Your task to perform on an android device: open app "Clock" Image 0: 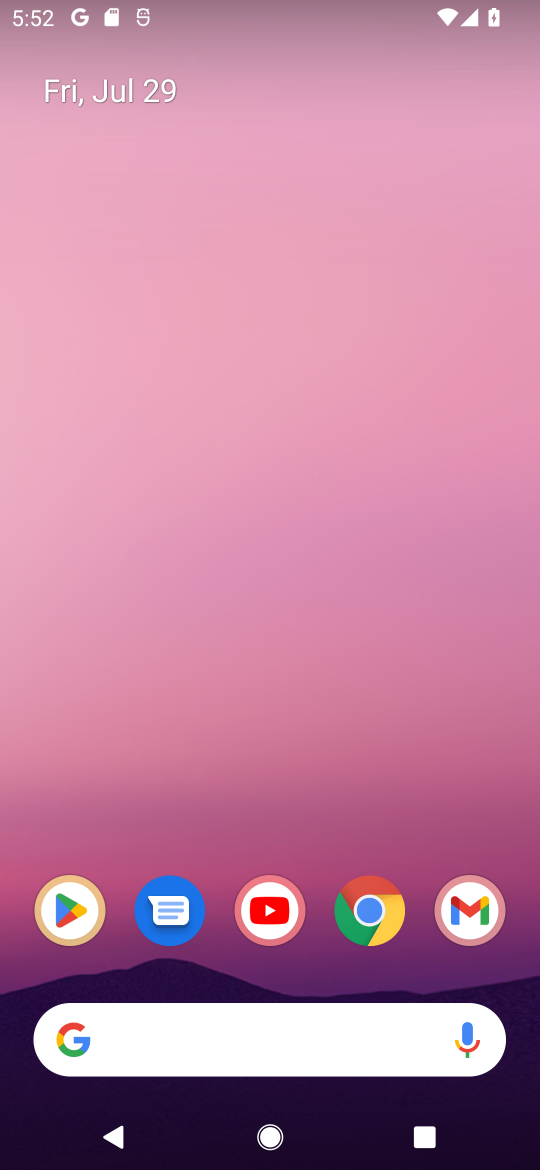
Step 0: click (78, 930)
Your task to perform on an android device: open app "Clock" Image 1: 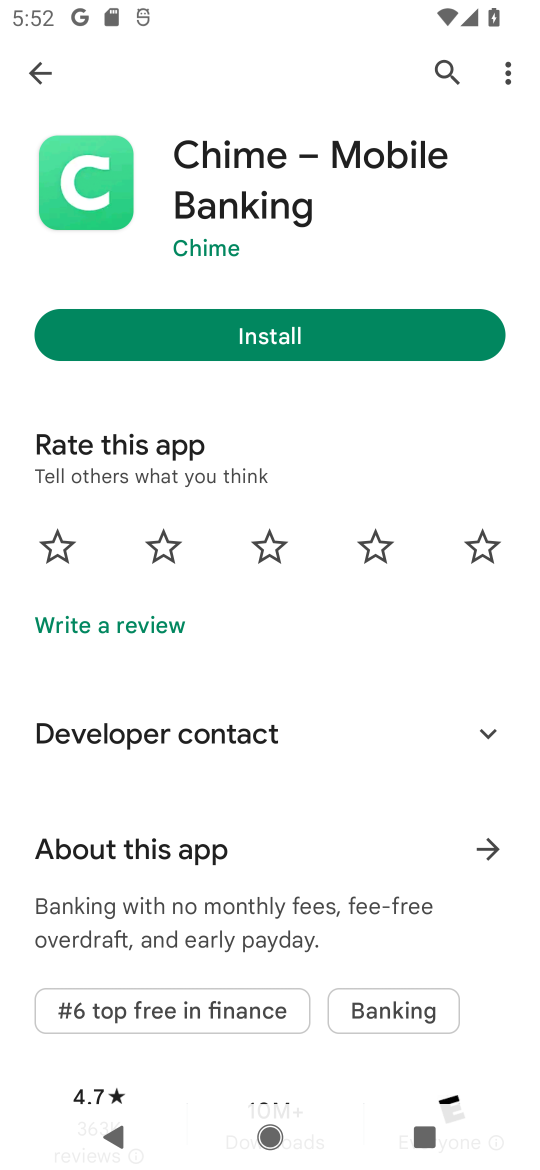
Step 1: click (442, 55)
Your task to perform on an android device: open app "Clock" Image 2: 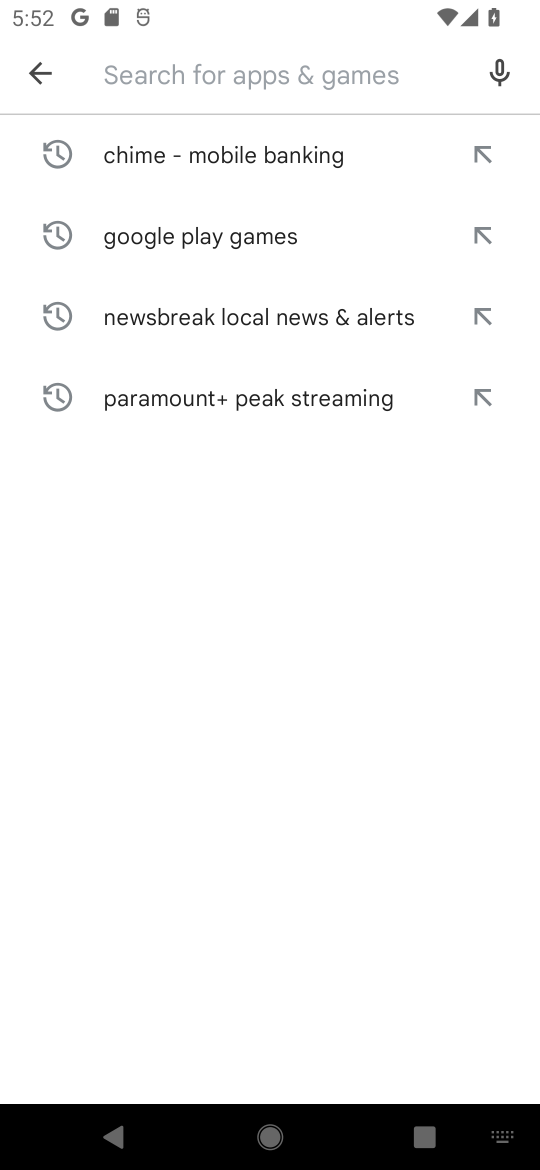
Step 2: type "clock"
Your task to perform on an android device: open app "Clock" Image 3: 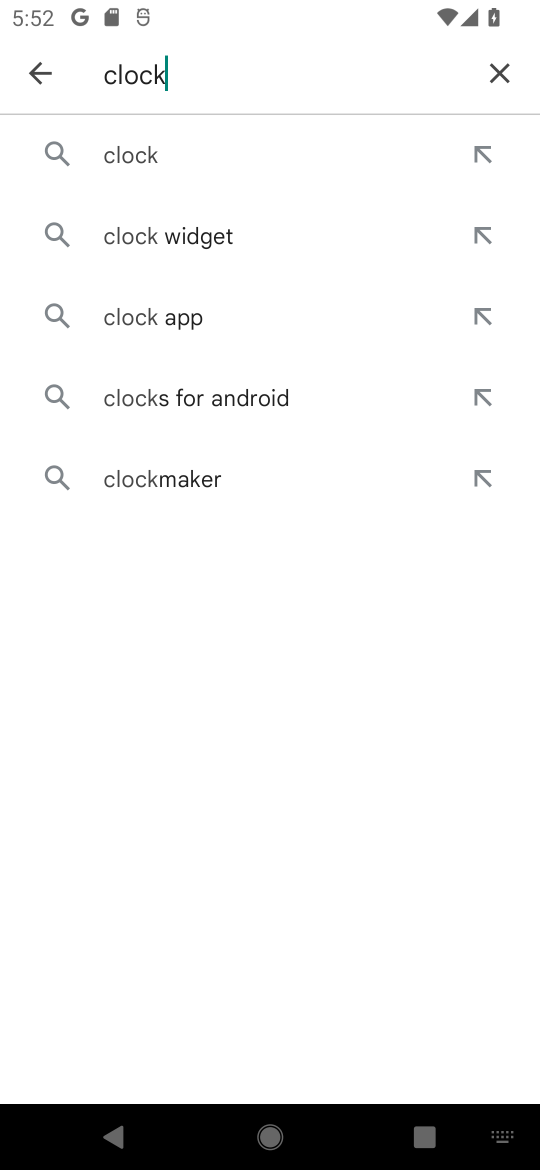
Step 3: click (199, 148)
Your task to perform on an android device: open app "Clock" Image 4: 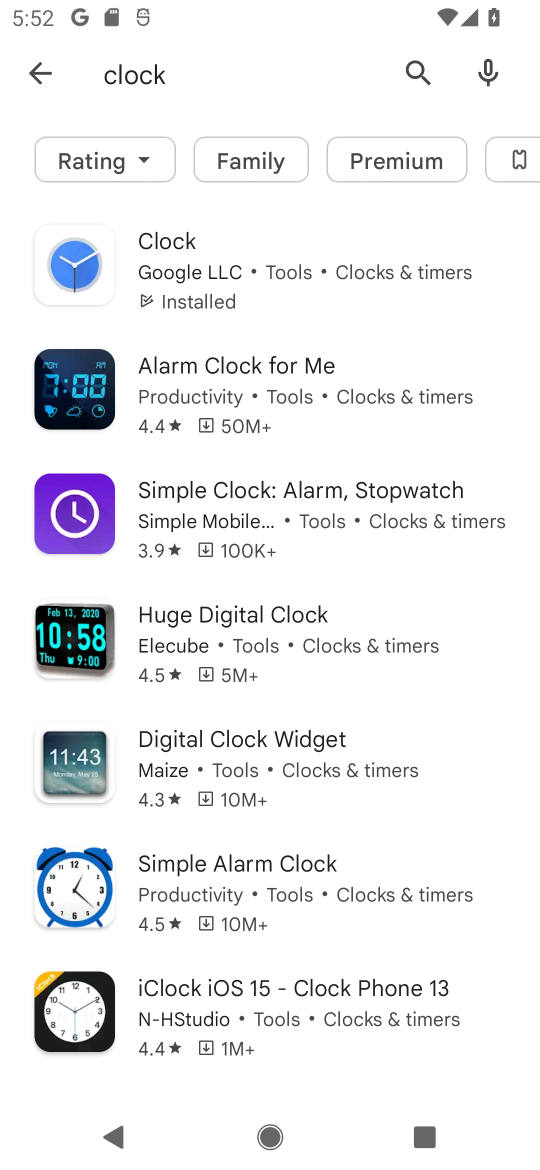
Step 4: click (181, 258)
Your task to perform on an android device: open app "Clock" Image 5: 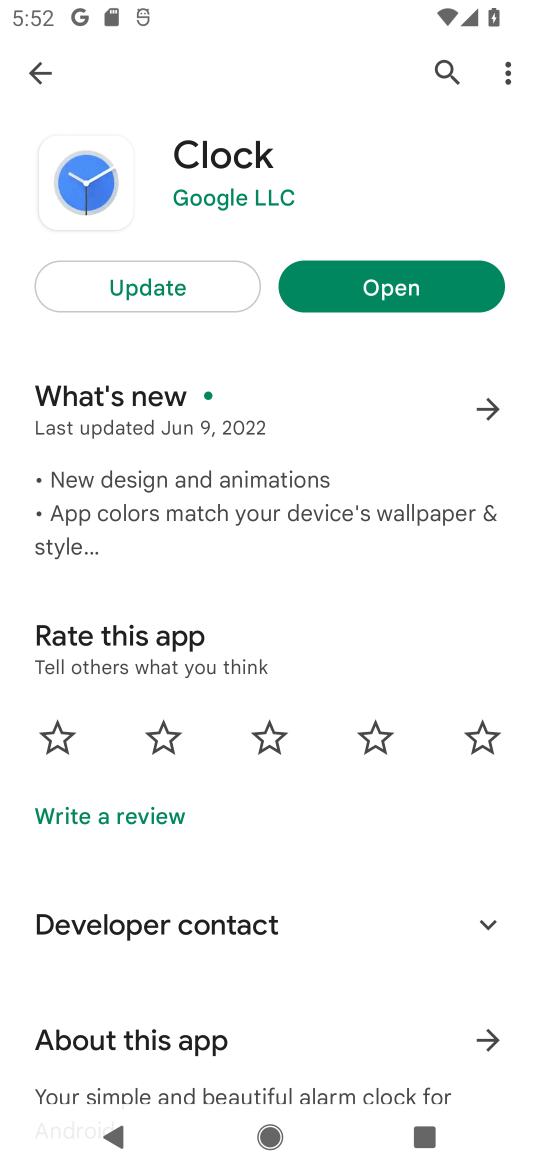
Step 5: click (377, 273)
Your task to perform on an android device: open app "Clock" Image 6: 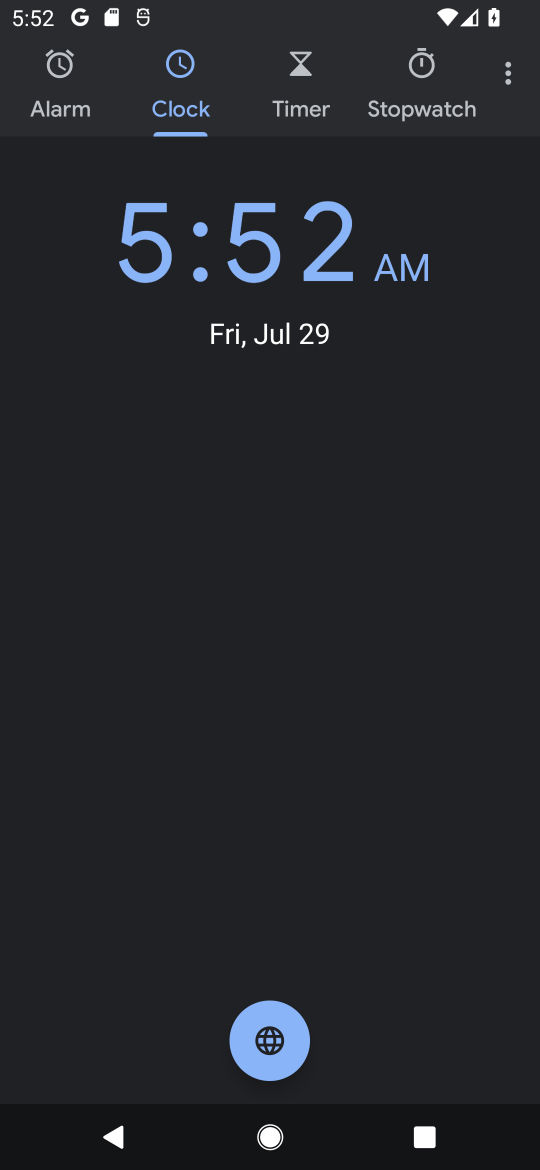
Step 6: task complete